Your task to perform on an android device: Show me the alarms in the clock app Image 0: 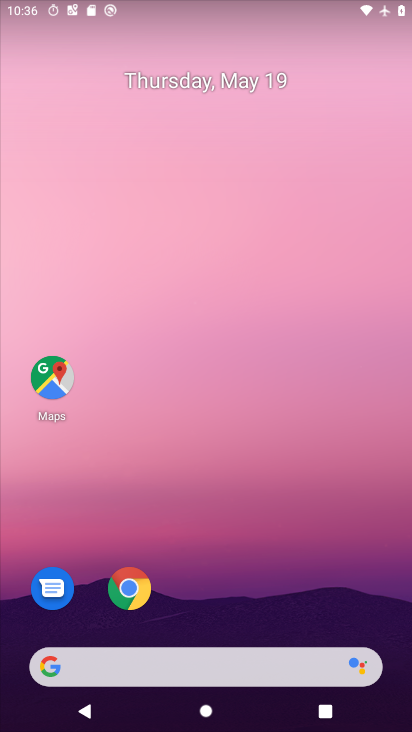
Step 0: drag from (171, 640) to (307, 171)
Your task to perform on an android device: Show me the alarms in the clock app Image 1: 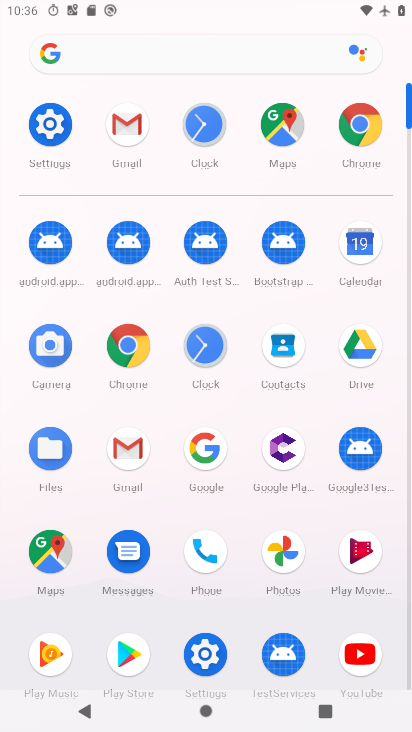
Step 1: click (201, 125)
Your task to perform on an android device: Show me the alarms in the clock app Image 2: 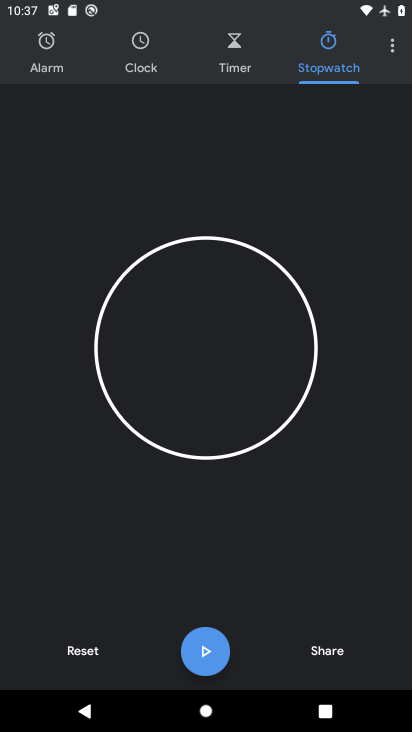
Step 2: click (38, 38)
Your task to perform on an android device: Show me the alarms in the clock app Image 3: 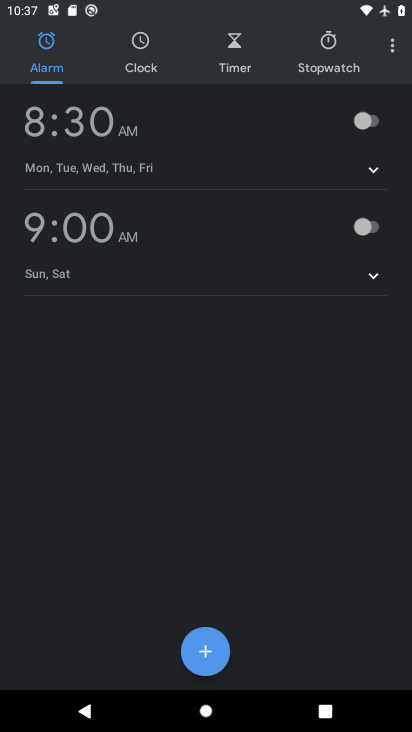
Step 3: task complete